Your task to perform on an android device: Search for Mexican restaurants on Maps Image 0: 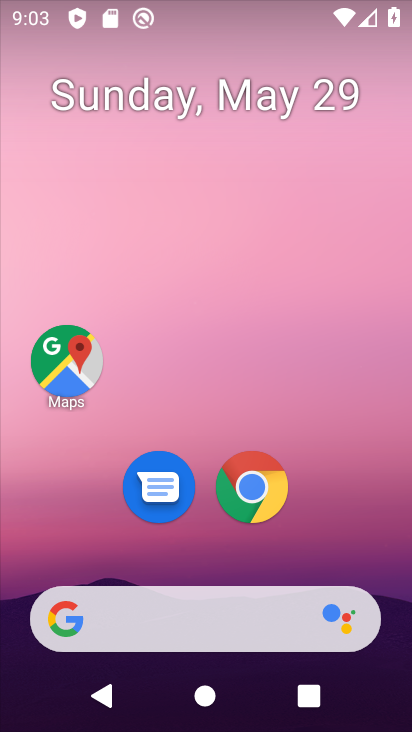
Step 0: click (50, 386)
Your task to perform on an android device: Search for Mexican restaurants on Maps Image 1: 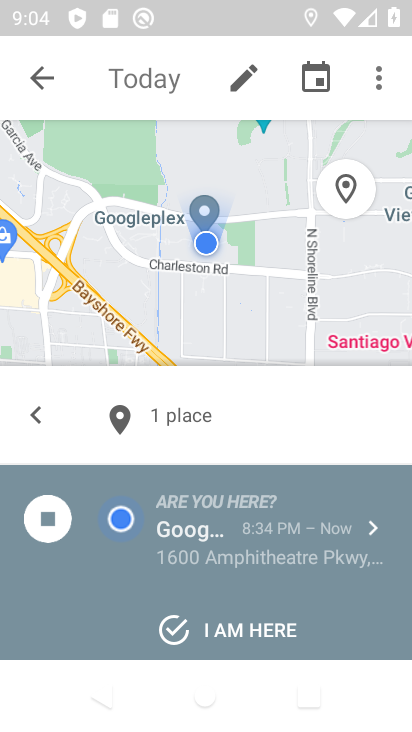
Step 1: click (35, 88)
Your task to perform on an android device: Search for Mexican restaurants on Maps Image 2: 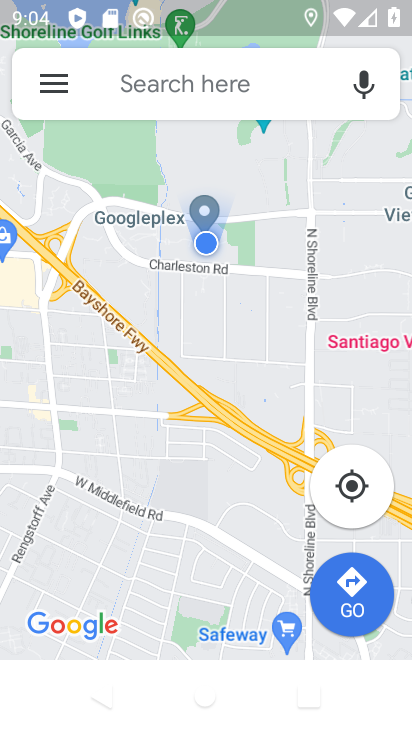
Step 2: click (195, 102)
Your task to perform on an android device: Search for Mexican restaurants on Maps Image 3: 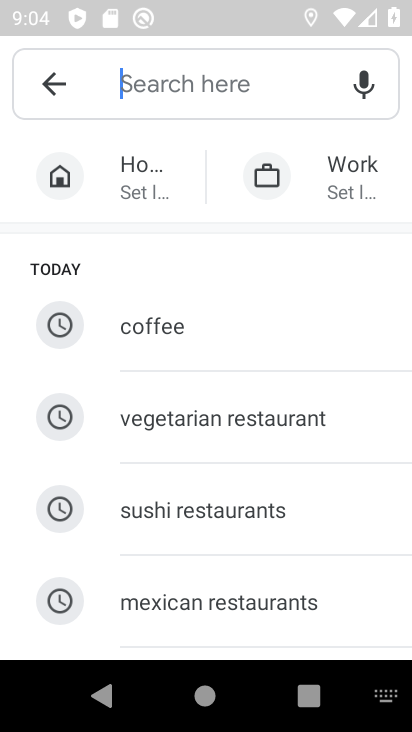
Step 3: click (183, 597)
Your task to perform on an android device: Search for Mexican restaurants on Maps Image 4: 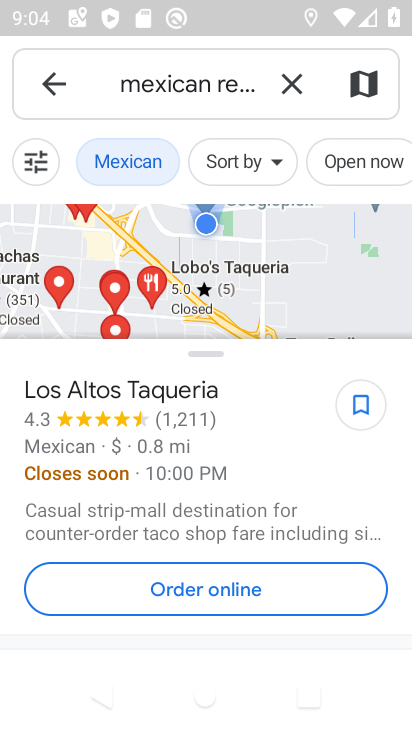
Step 4: task complete